Your task to perform on an android device: Search for Italian restaurants on Maps Image 0: 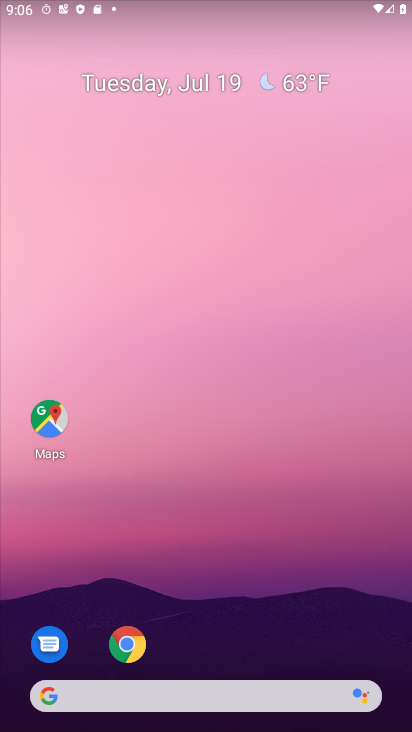
Step 0: drag from (264, 581) to (236, 180)
Your task to perform on an android device: Search for Italian restaurants on Maps Image 1: 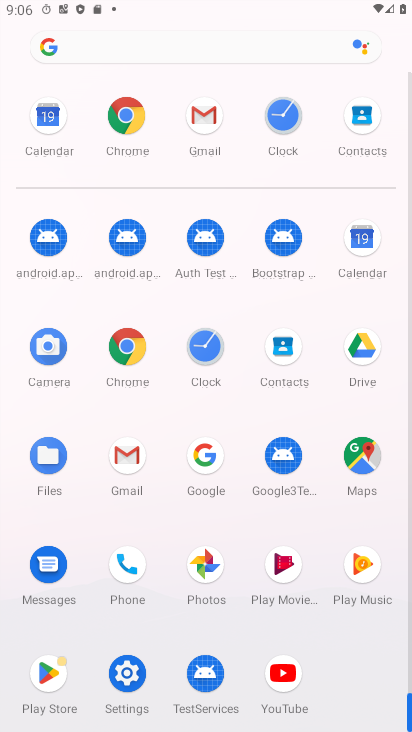
Step 1: click (369, 458)
Your task to perform on an android device: Search for Italian restaurants on Maps Image 2: 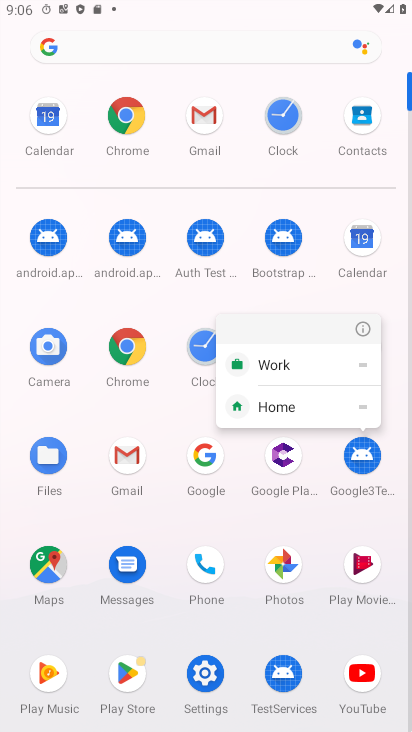
Step 2: click (246, 444)
Your task to perform on an android device: Search for Italian restaurants on Maps Image 3: 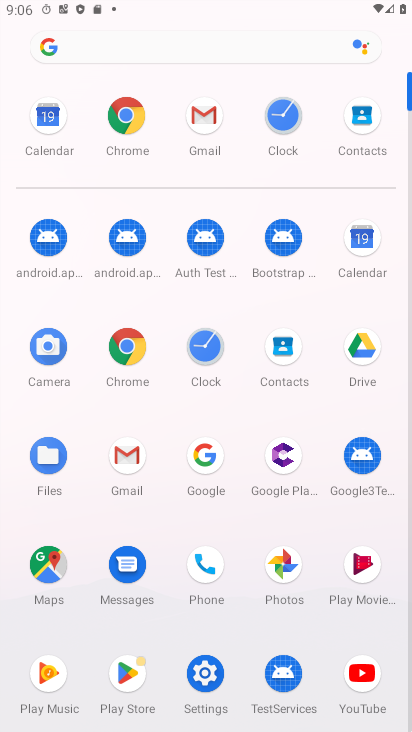
Step 3: click (247, 444)
Your task to perform on an android device: Search for Italian restaurants on Maps Image 4: 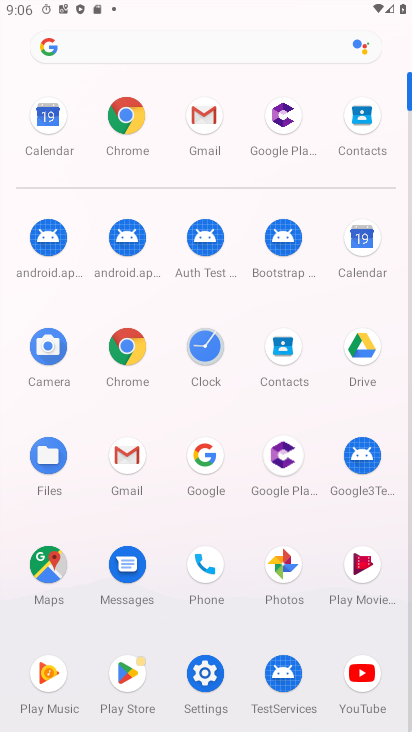
Step 4: click (36, 553)
Your task to perform on an android device: Search for Italian restaurants on Maps Image 5: 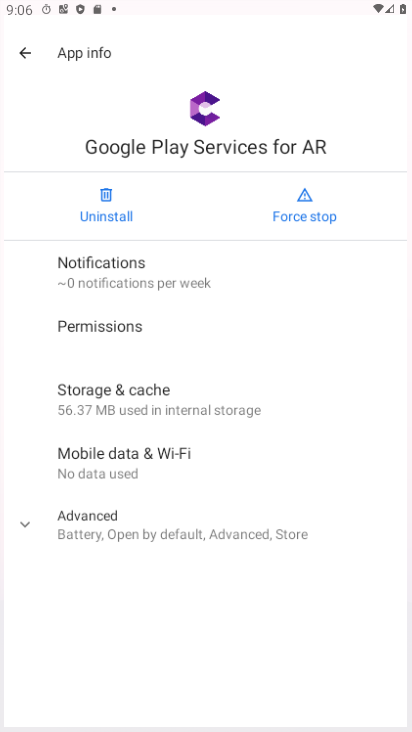
Step 5: click (41, 555)
Your task to perform on an android device: Search for Italian restaurants on Maps Image 6: 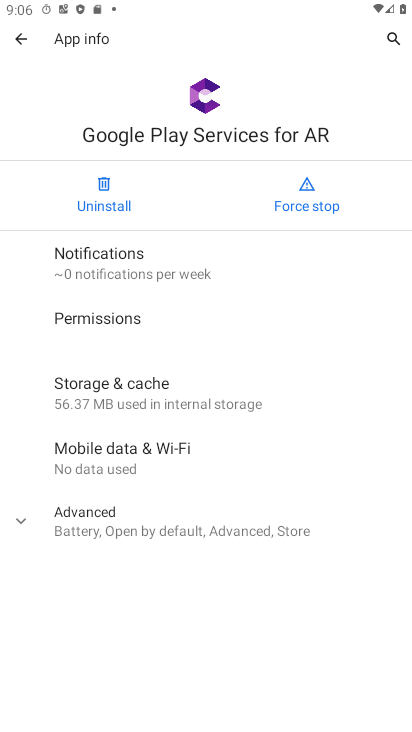
Step 6: click (42, 557)
Your task to perform on an android device: Search for Italian restaurants on Maps Image 7: 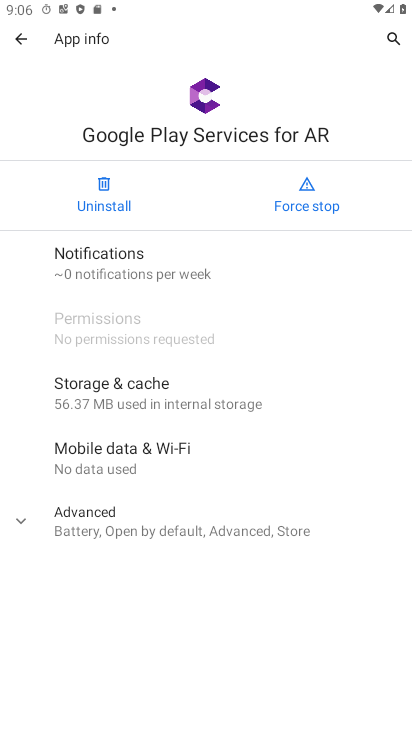
Step 7: click (14, 44)
Your task to perform on an android device: Search for Italian restaurants on Maps Image 8: 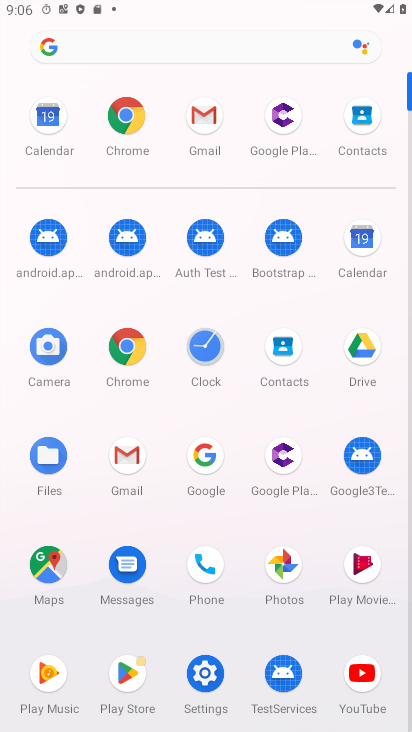
Step 8: click (43, 558)
Your task to perform on an android device: Search for Italian restaurants on Maps Image 9: 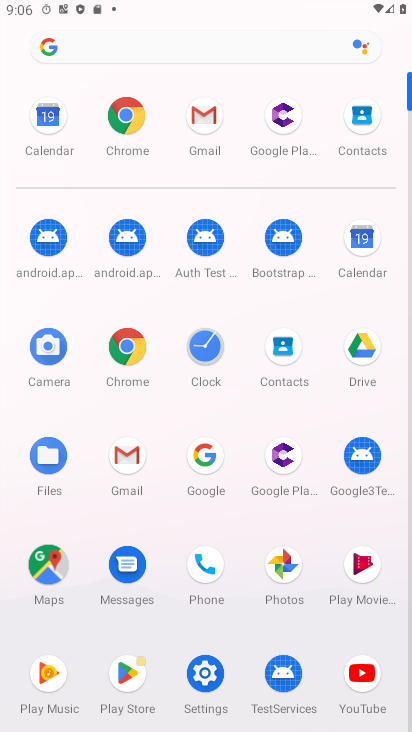
Step 9: click (46, 560)
Your task to perform on an android device: Search for Italian restaurants on Maps Image 10: 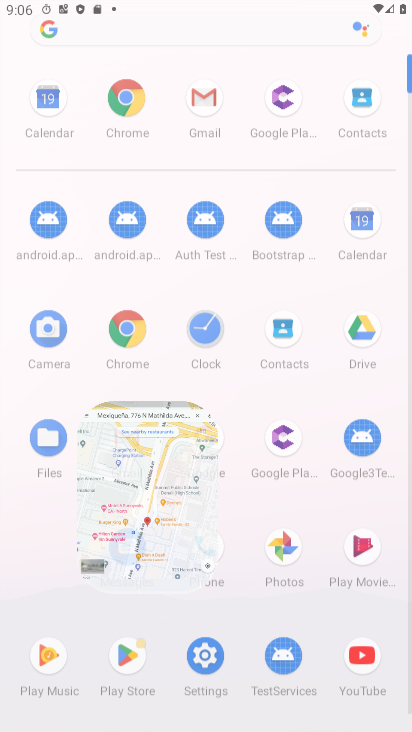
Step 10: click (48, 562)
Your task to perform on an android device: Search for Italian restaurants on Maps Image 11: 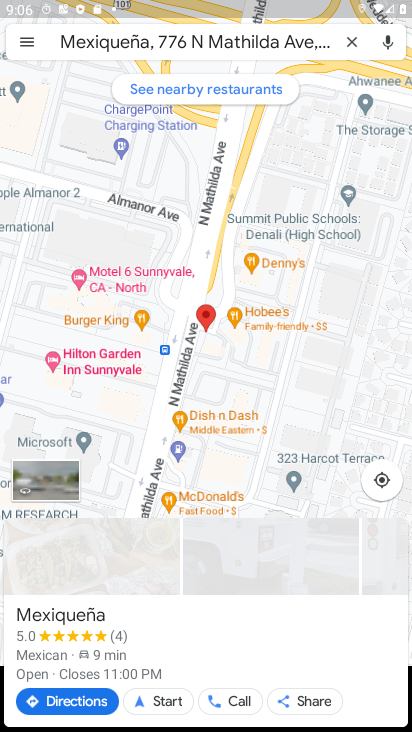
Step 11: click (161, 37)
Your task to perform on an android device: Search for Italian restaurants on Maps Image 12: 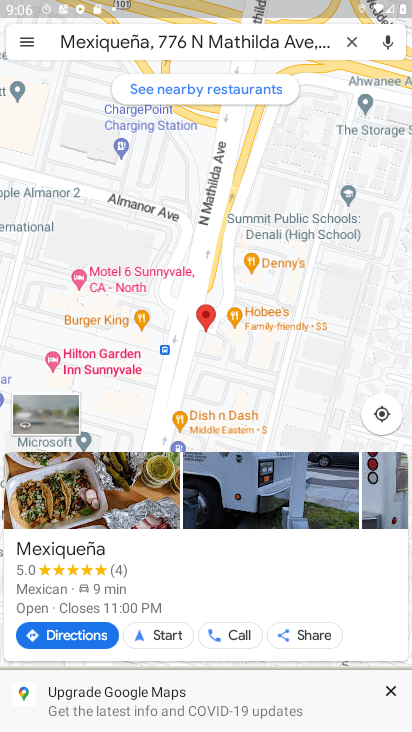
Step 12: click (169, 42)
Your task to perform on an android device: Search for Italian restaurants on Maps Image 13: 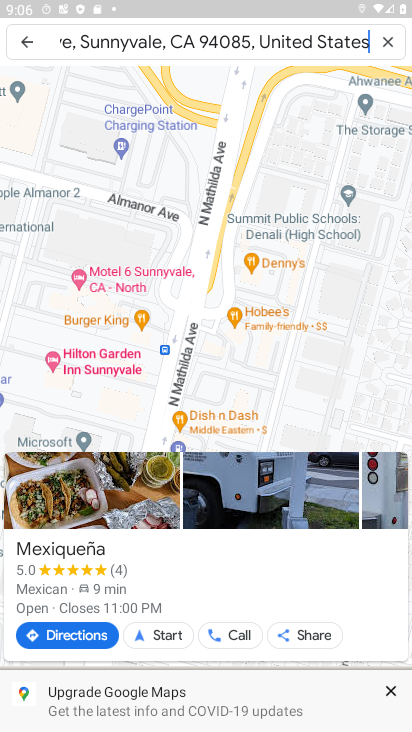
Step 13: click (357, 42)
Your task to perform on an android device: Search for Italian restaurants on Maps Image 14: 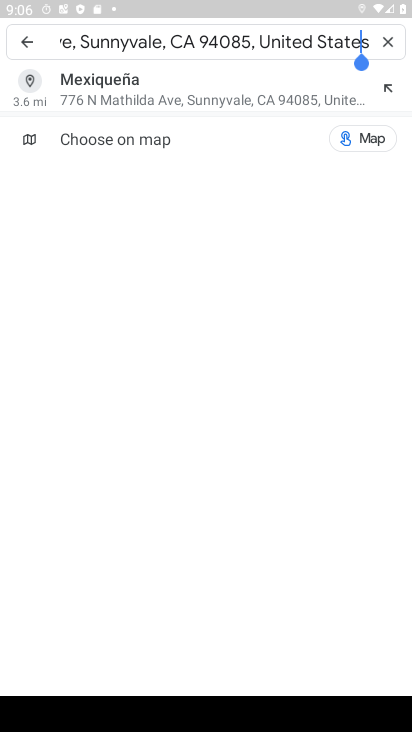
Step 14: click (394, 38)
Your task to perform on an android device: Search for Italian restaurants on Maps Image 15: 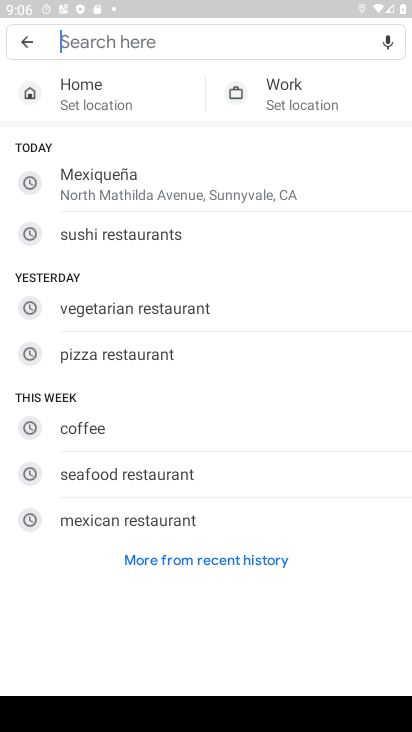
Step 15: type "italian restaurants"
Your task to perform on an android device: Search for Italian restaurants on Maps Image 16: 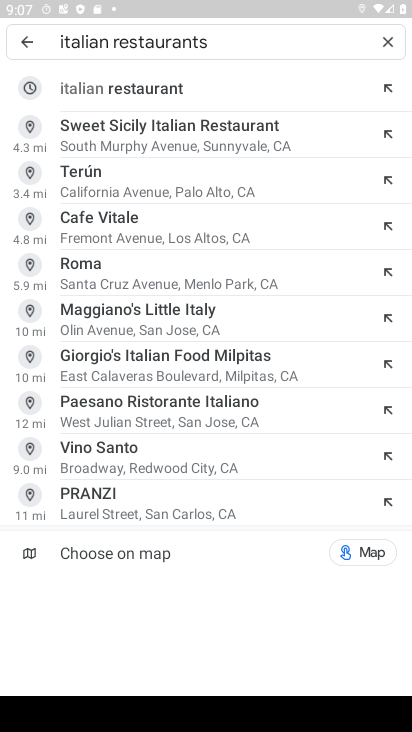
Step 16: click (155, 88)
Your task to perform on an android device: Search for Italian restaurants on Maps Image 17: 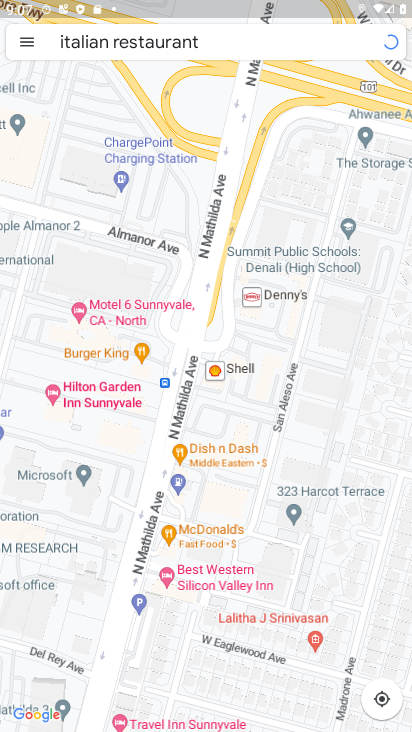
Step 17: task complete